Your task to perform on an android device: Go to sound settings Image 0: 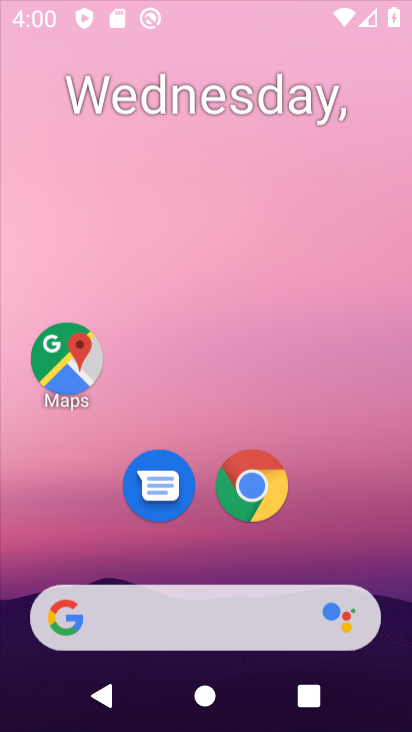
Step 0: press home button
Your task to perform on an android device: Go to sound settings Image 1: 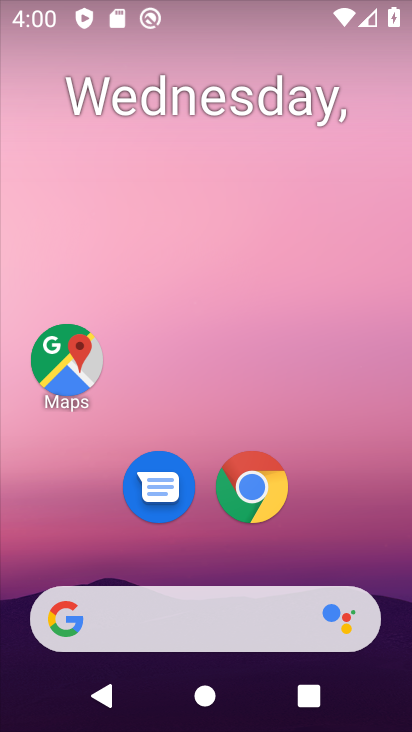
Step 1: drag from (201, 556) to (220, 65)
Your task to perform on an android device: Go to sound settings Image 2: 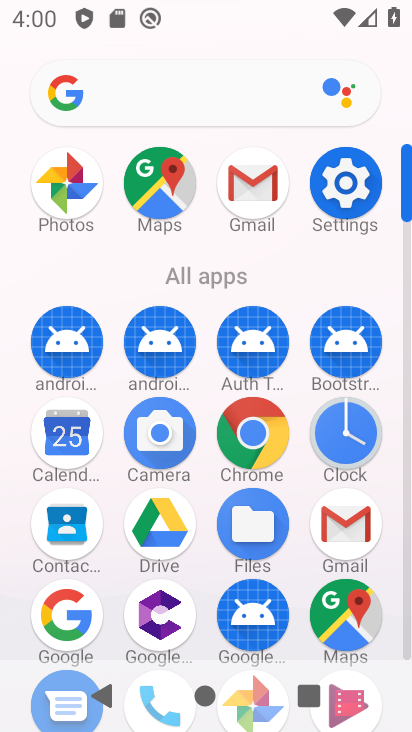
Step 2: click (349, 180)
Your task to perform on an android device: Go to sound settings Image 3: 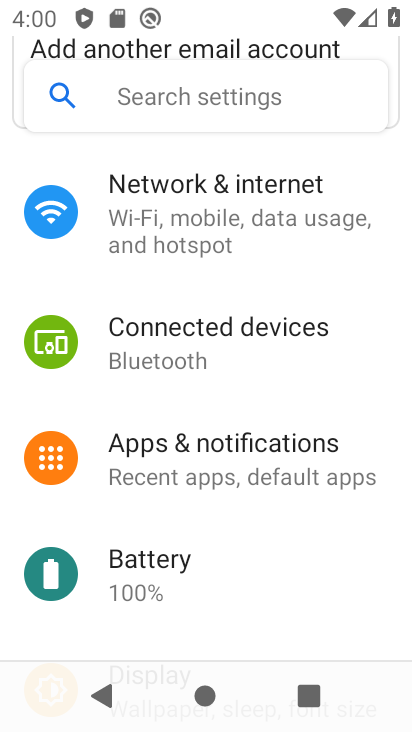
Step 3: drag from (205, 596) to (234, 271)
Your task to perform on an android device: Go to sound settings Image 4: 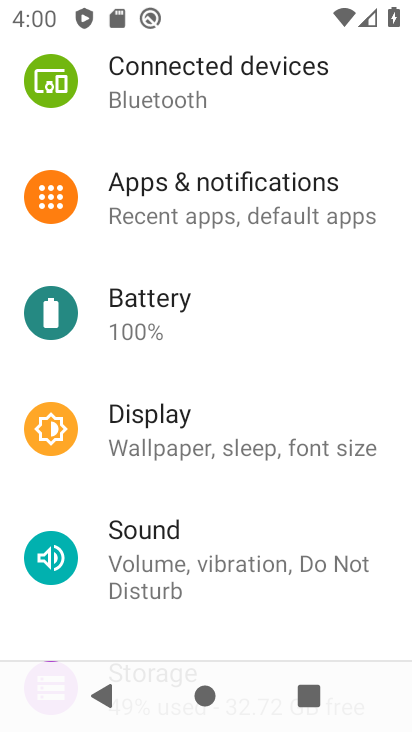
Step 4: click (195, 540)
Your task to perform on an android device: Go to sound settings Image 5: 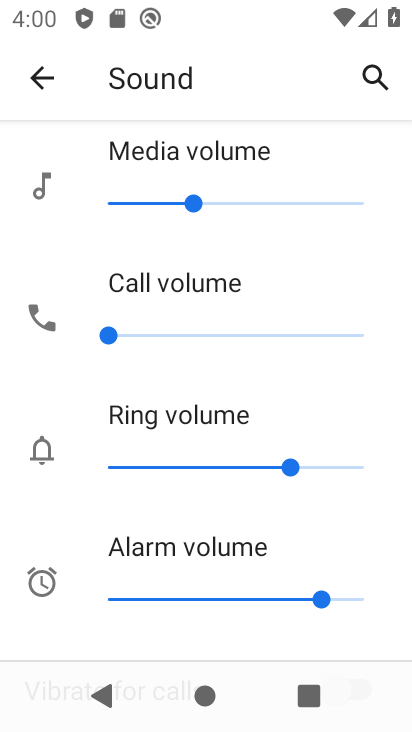
Step 5: drag from (86, 625) to (81, 62)
Your task to perform on an android device: Go to sound settings Image 6: 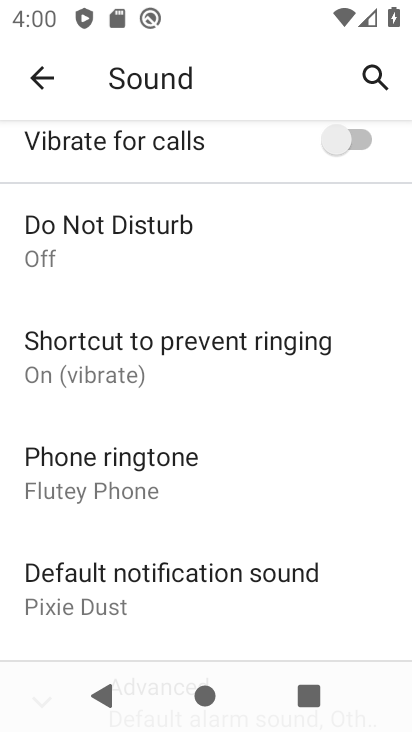
Step 6: drag from (164, 630) to (168, 73)
Your task to perform on an android device: Go to sound settings Image 7: 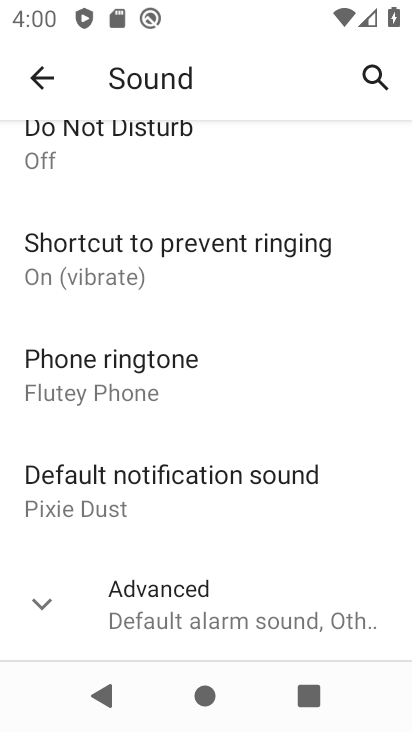
Step 7: click (42, 603)
Your task to perform on an android device: Go to sound settings Image 8: 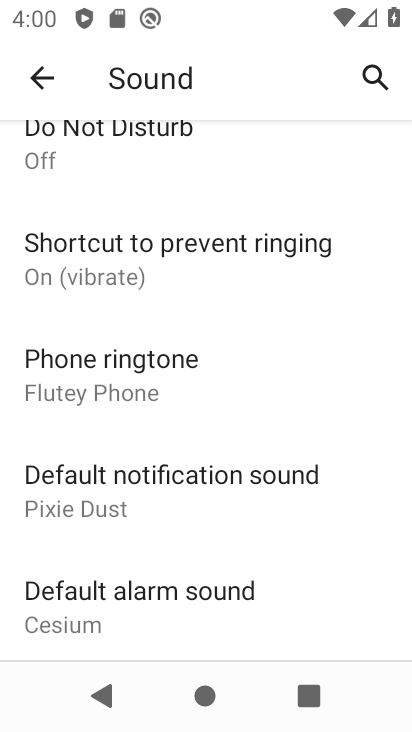
Step 8: task complete